Your task to perform on an android device: turn off improve location accuracy Image 0: 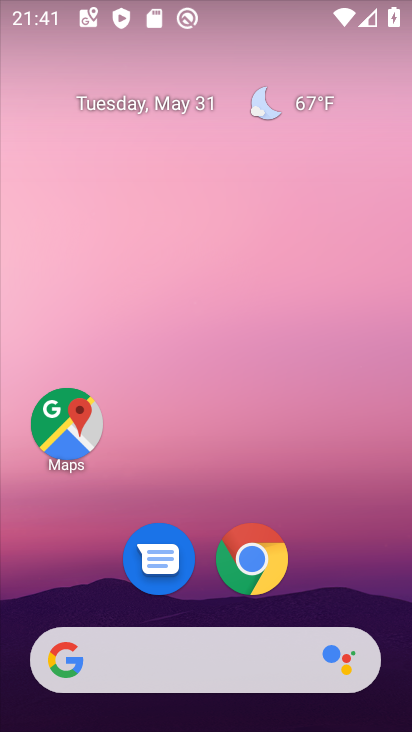
Step 0: drag from (339, 566) to (335, 35)
Your task to perform on an android device: turn off improve location accuracy Image 1: 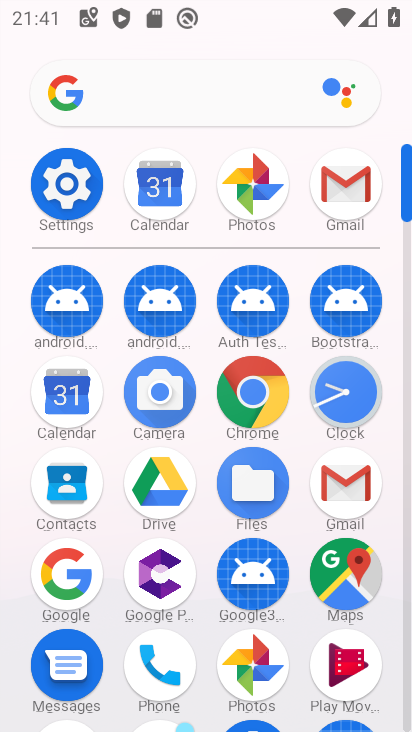
Step 1: click (64, 179)
Your task to perform on an android device: turn off improve location accuracy Image 2: 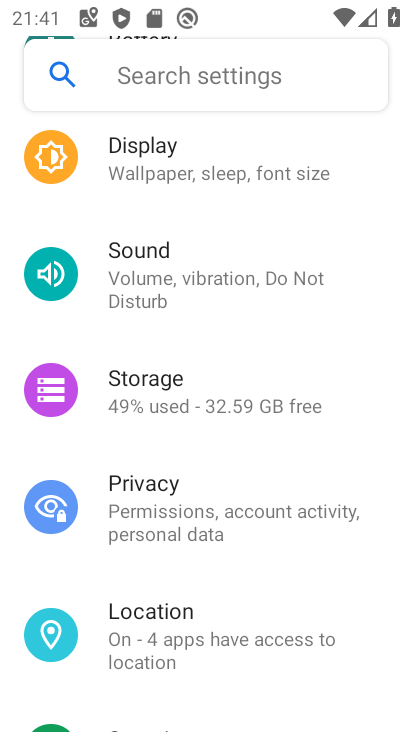
Step 2: click (172, 629)
Your task to perform on an android device: turn off improve location accuracy Image 3: 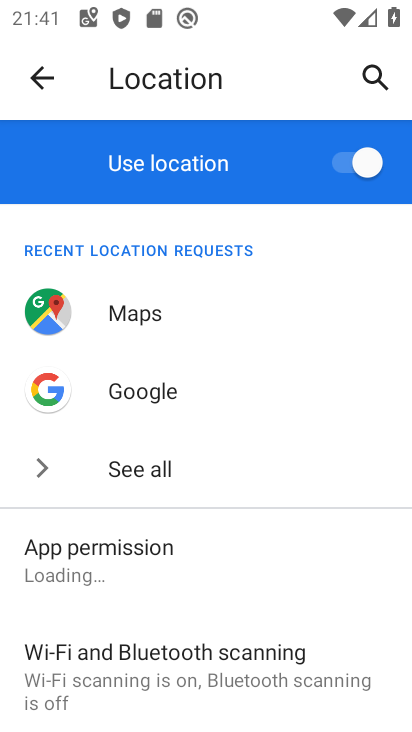
Step 3: click (360, 163)
Your task to perform on an android device: turn off improve location accuracy Image 4: 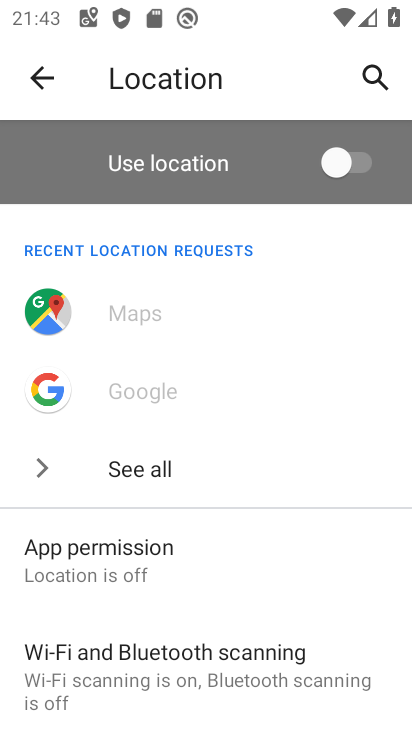
Step 4: task complete